Your task to perform on an android device: change the clock display to show seconds Image 0: 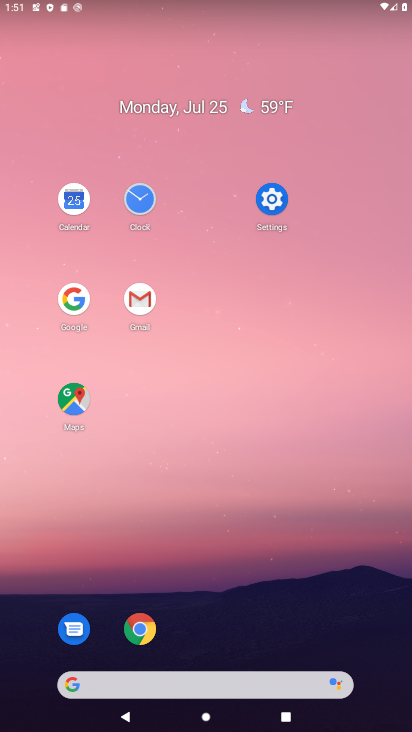
Step 0: click (140, 199)
Your task to perform on an android device: change the clock display to show seconds Image 1: 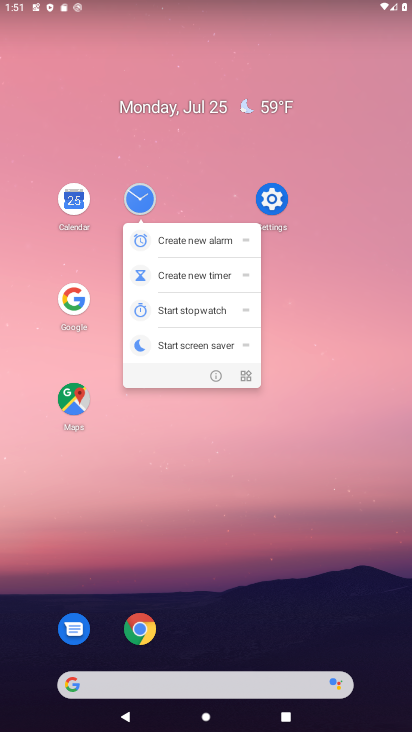
Step 1: click (145, 187)
Your task to perform on an android device: change the clock display to show seconds Image 2: 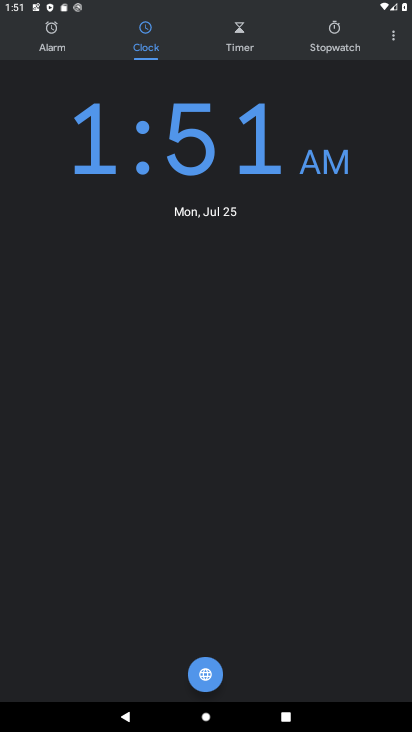
Step 2: click (400, 34)
Your task to perform on an android device: change the clock display to show seconds Image 3: 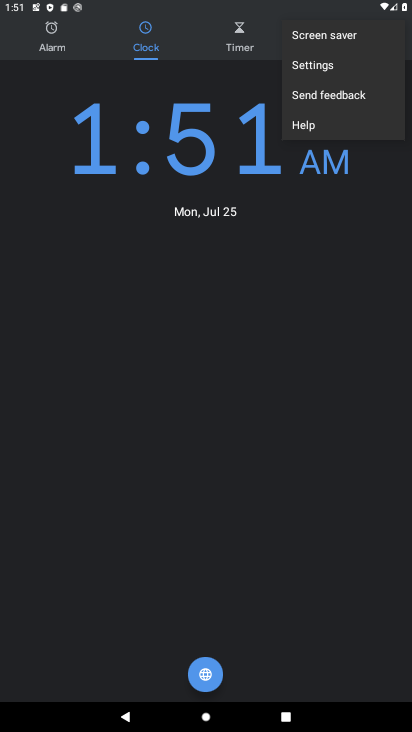
Step 3: click (323, 63)
Your task to perform on an android device: change the clock display to show seconds Image 4: 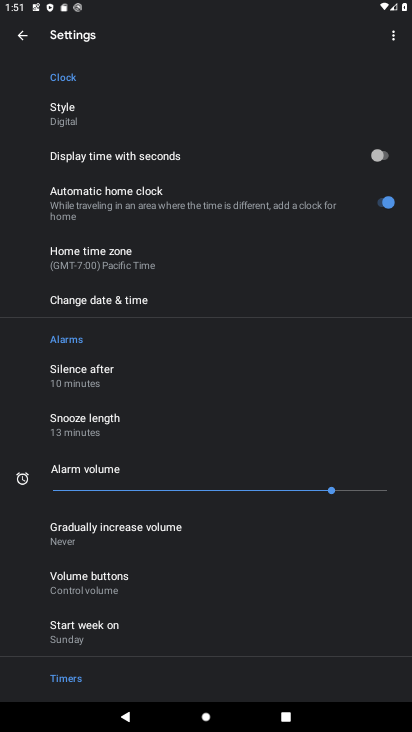
Step 4: click (350, 159)
Your task to perform on an android device: change the clock display to show seconds Image 5: 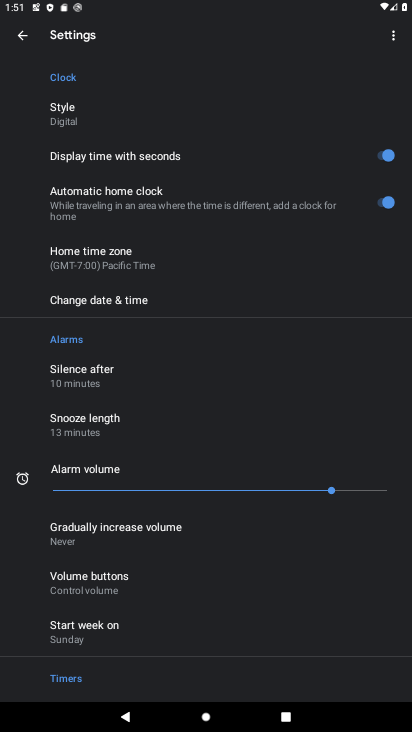
Step 5: task complete